Your task to perform on an android device: turn notification dots on Image 0: 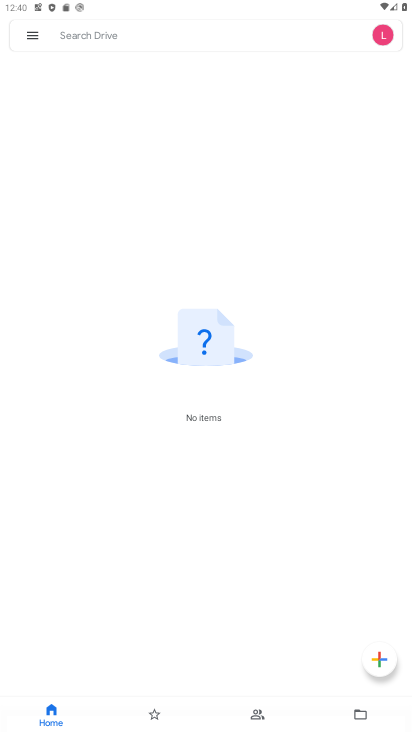
Step 0: press home button
Your task to perform on an android device: turn notification dots on Image 1: 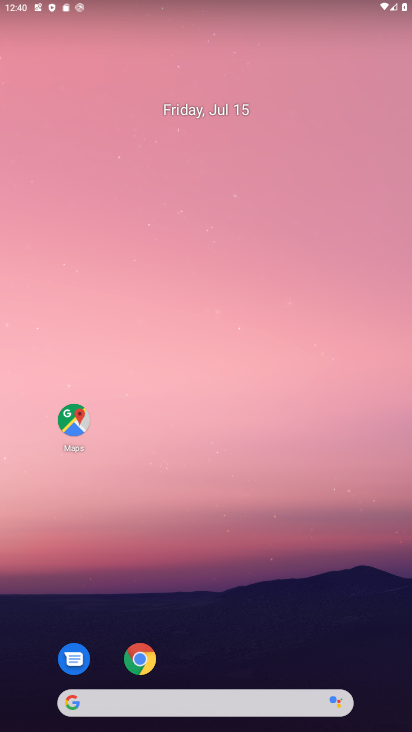
Step 1: drag from (210, 654) to (226, 152)
Your task to perform on an android device: turn notification dots on Image 2: 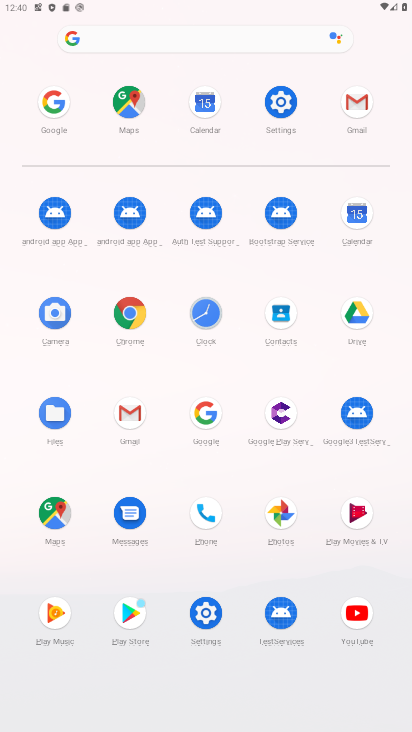
Step 2: click (273, 116)
Your task to perform on an android device: turn notification dots on Image 3: 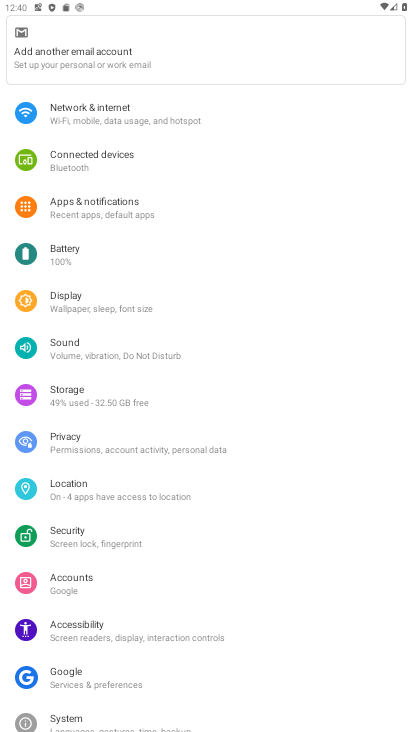
Step 3: click (159, 217)
Your task to perform on an android device: turn notification dots on Image 4: 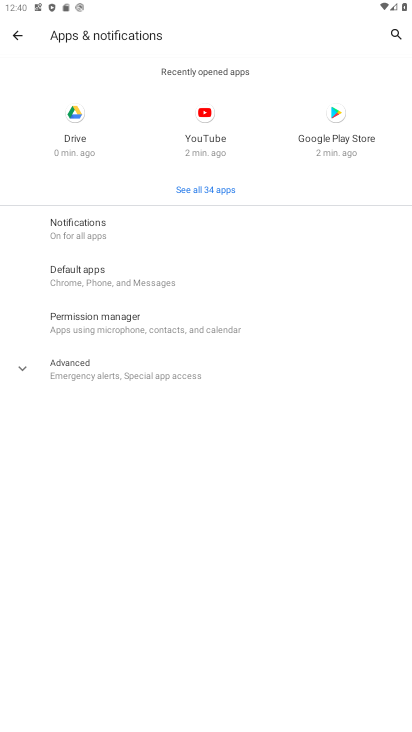
Step 4: click (114, 238)
Your task to perform on an android device: turn notification dots on Image 5: 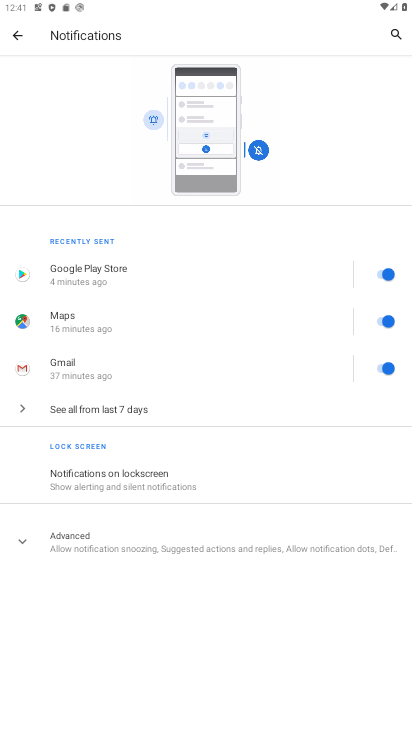
Step 5: click (84, 537)
Your task to perform on an android device: turn notification dots on Image 6: 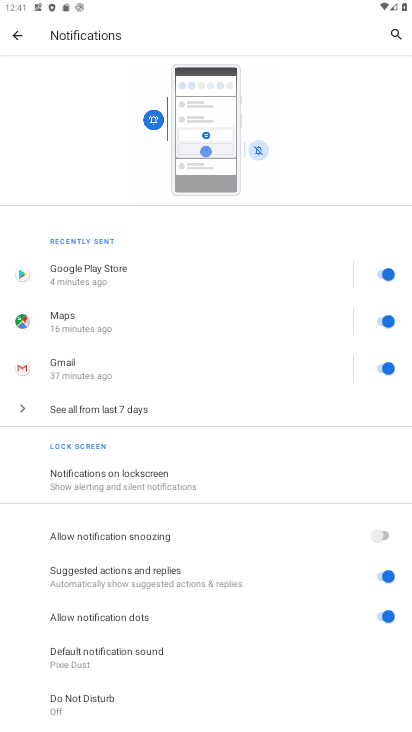
Step 6: task complete